Your task to perform on an android device: turn on improve location accuracy Image 0: 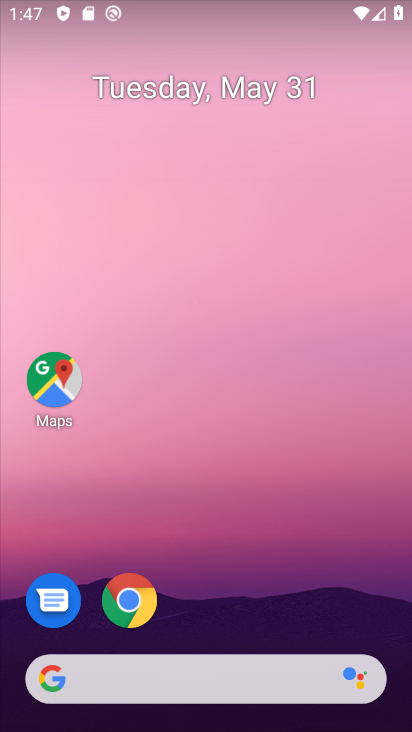
Step 0: drag from (225, 632) to (286, 98)
Your task to perform on an android device: turn on improve location accuracy Image 1: 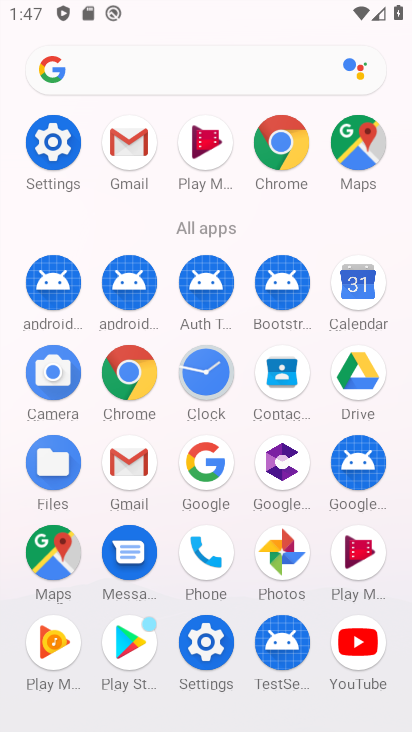
Step 1: click (49, 134)
Your task to perform on an android device: turn on improve location accuracy Image 2: 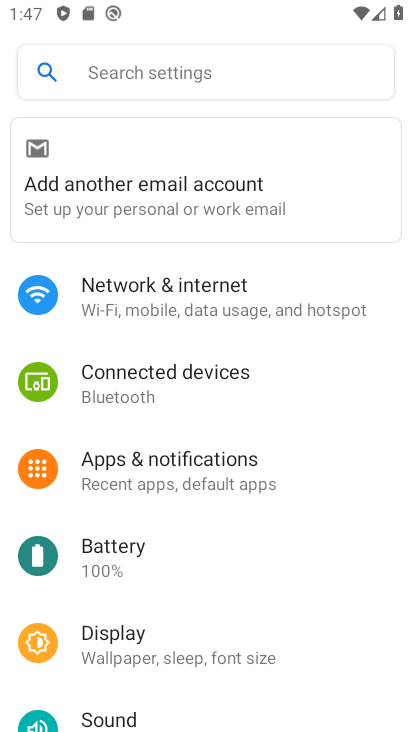
Step 2: drag from (176, 691) to (215, 225)
Your task to perform on an android device: turn on improve location accuracy Image 3: 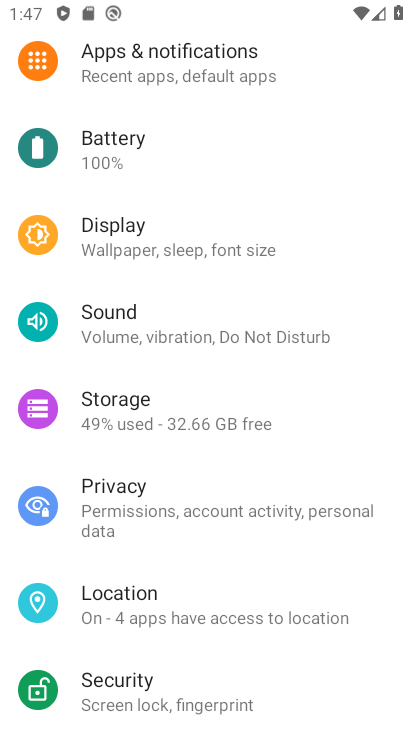
Step 3: click (178, 594)
Your task to perform on an android device: turn on improve location accuracy Image 4: 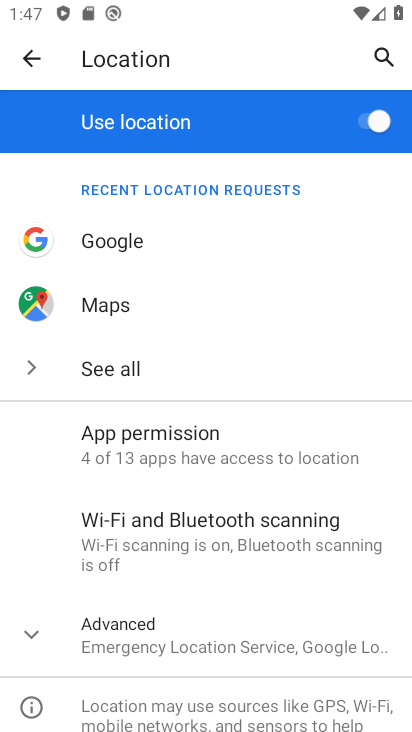
Step 4: click (111, 639)
Your task to perform on an android device: turn on improve location accuracy Image 5: 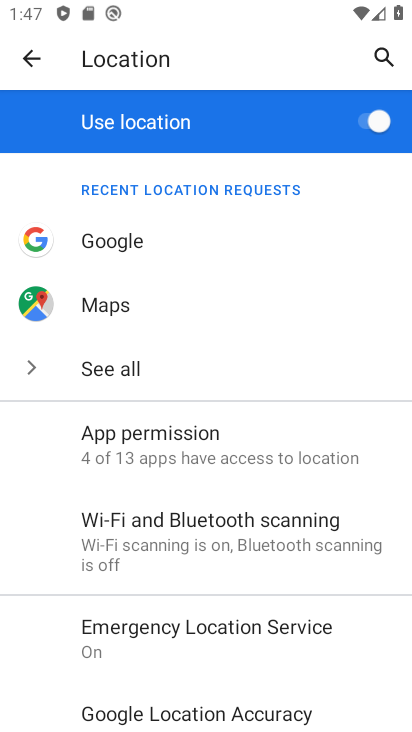
Step 5: drag from (215, 648) to (236, 380)
Your task to perform on an android device: turn on improve location accuracy Image 6: 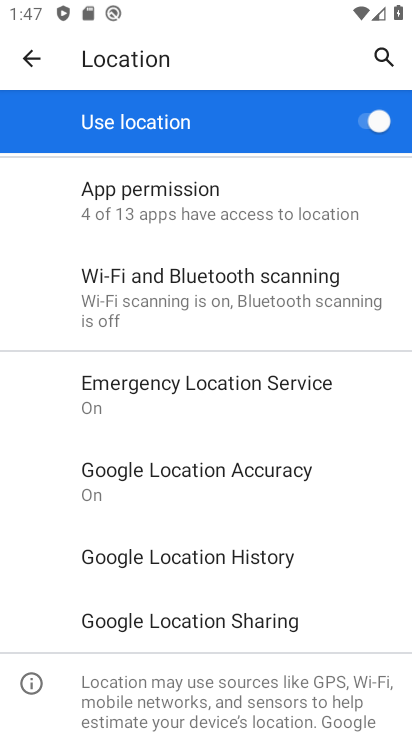
Step 6: click (189, 483)
Your task to perform on an android device: turn on improve location accuracy Image 7: 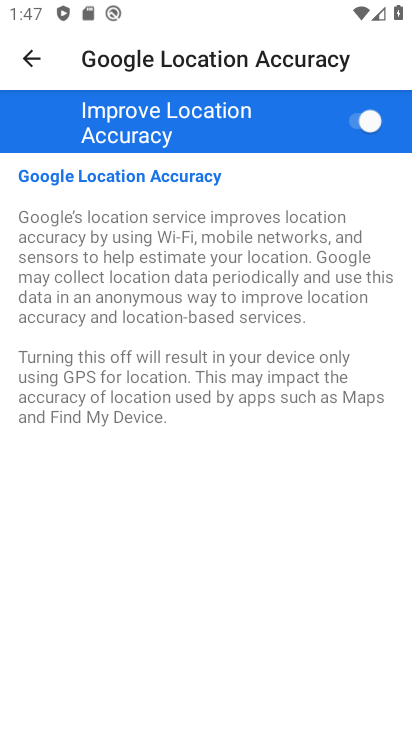
Step 7: task complete